Your task to perform on an android device: What's on my calendar tomorrow? Image 0: 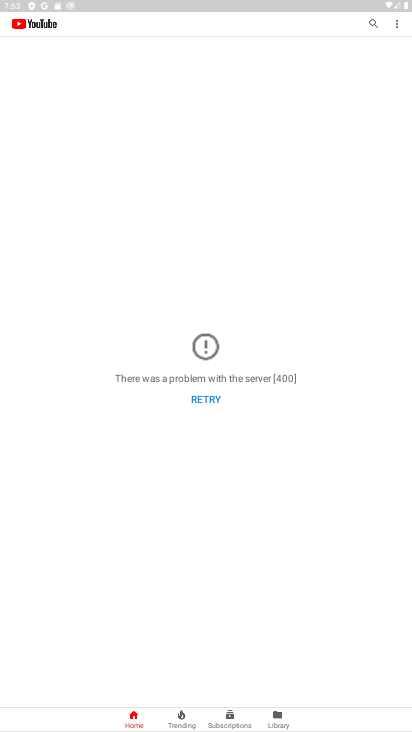
Step 0: press home button
Your task to perform on an android device: What's on my calendar tomorrow? Image 1: 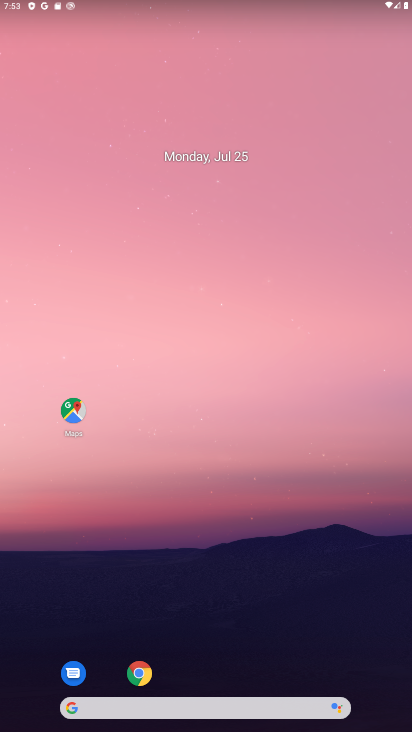
Step 1: drag from (262, 672) to (171, 18)
Your task to perform on an android device: What's on my calendar tomorrow? Image 2: 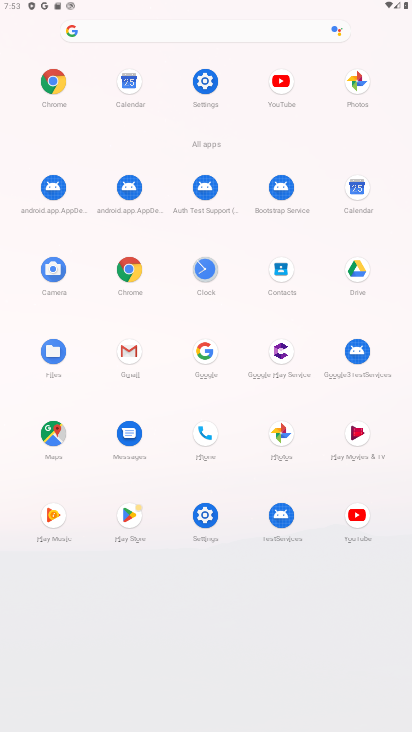
Step 2: click (203, 518)
Your task to perform on an android device: What's on my calendar tomorrow? Image 3: 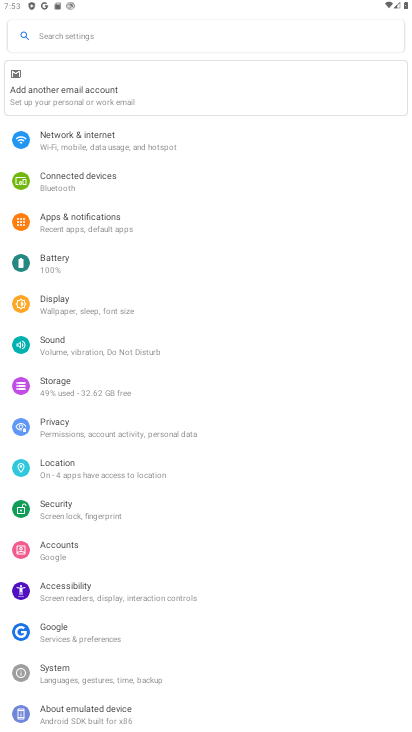
Step 3: task complete